Your task to perform on an android device: toggle airplane mode Image 0: 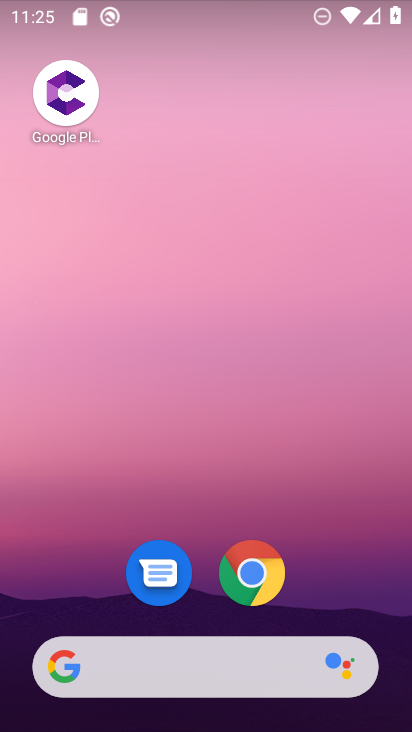
Step 0: drag from (223, 462) to (194, 39)
Your task to perform on an android device: toggle airplane mode Image 1: 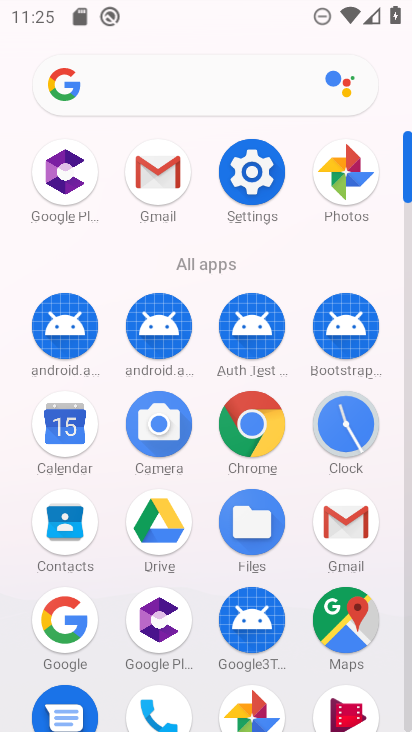
Step 1: click (253, 177)
Your task to perform on an android device: toggle airplane mode Image 2: 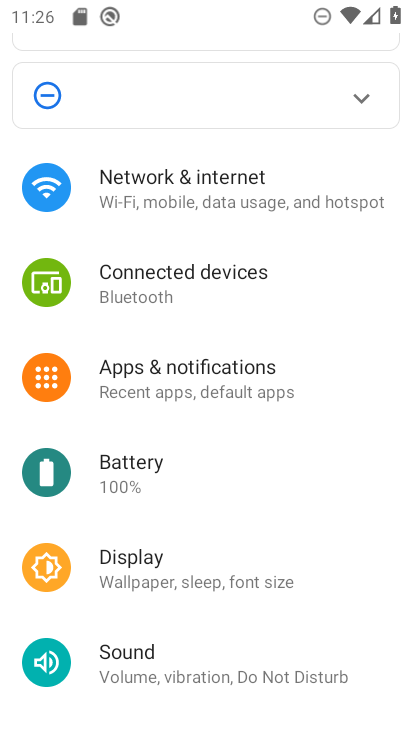
Step 2: click (209, 388)
Your task to perform on an android device: toggle airplane mode Image 3: 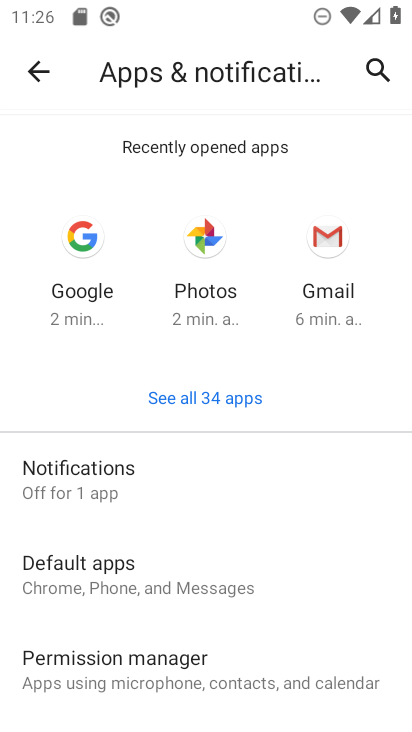
Step 3: task complete